Your task to perform on an android device: turn notification dots off Image 0: 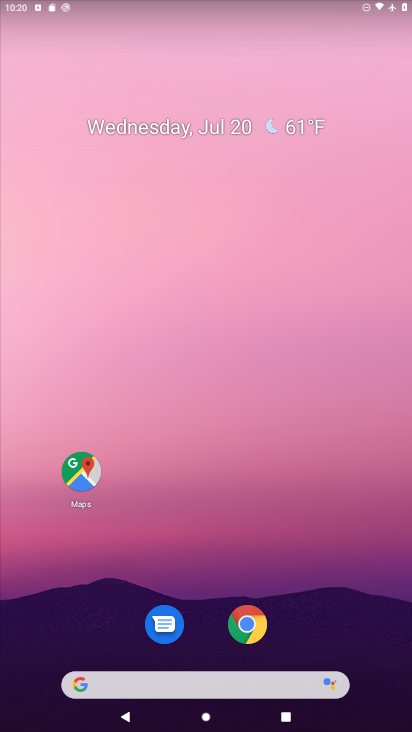
Step 0: drag from (205, 575) to (169, 174)
Your task to perform on an android device: turn notification dots off Image 1: 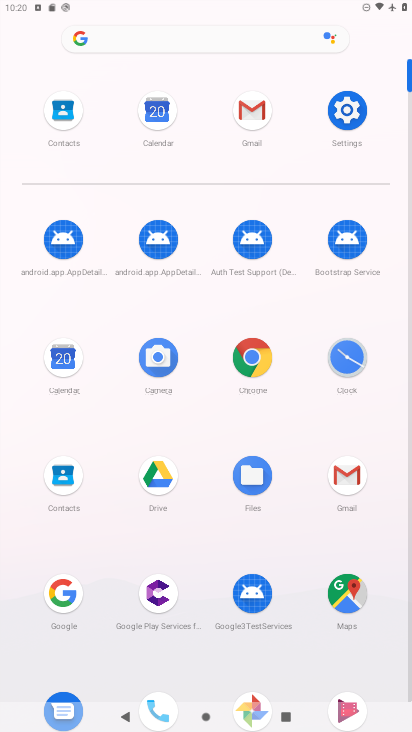
Step 1: click (340, 95)
Your task to perform on an android device: turn notification dots off Image 2: 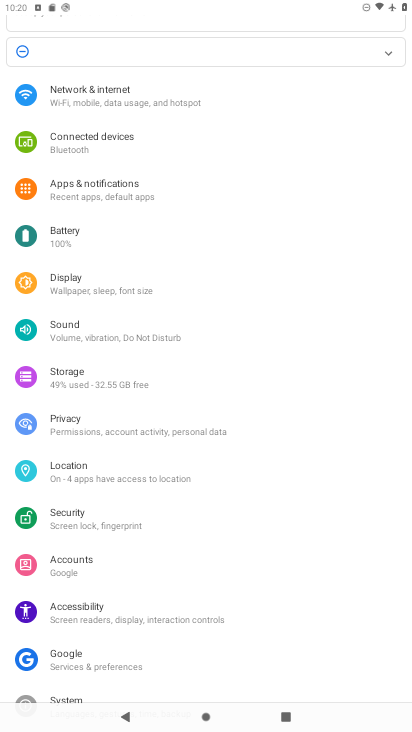
Step 2: click (148, 199)
Your task to perform on an android device: turn notification dots off Image 3: 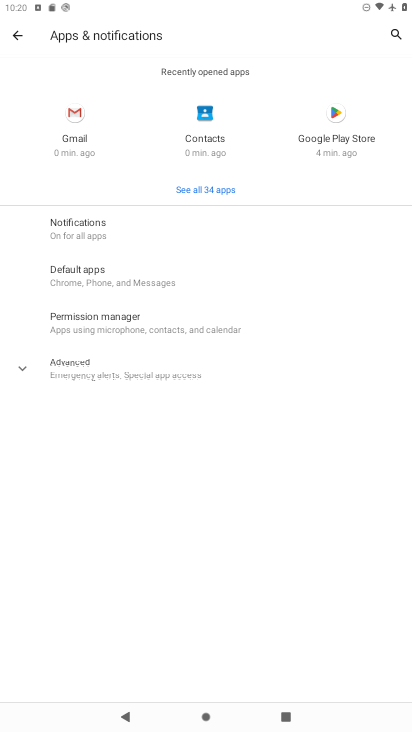
Step 3: click (128, 219)
Your task to perform on an android device: turn notification dots off Image 4: 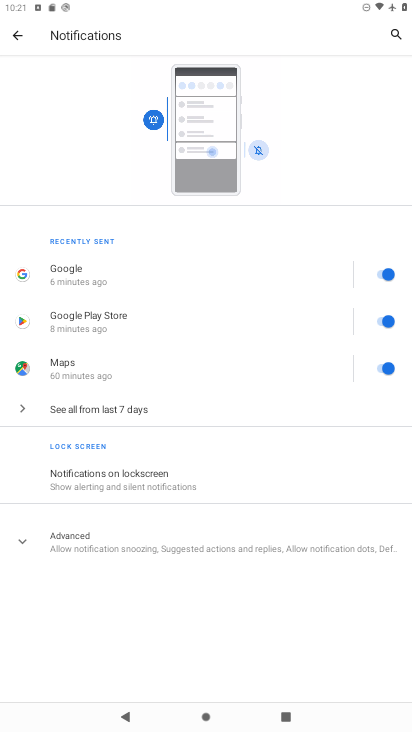
Step 4: click (149, 539)
Your task to perform on an android device: turn notification dots off Image 5: 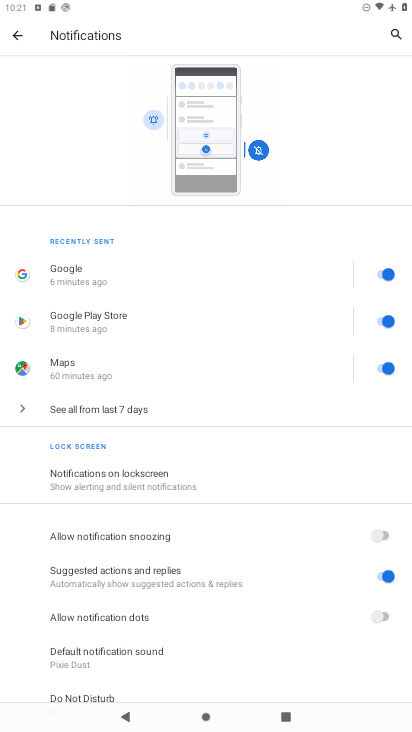
Step 5: task complete